Your task to perform on an android device: What's the weather today? Image 0: 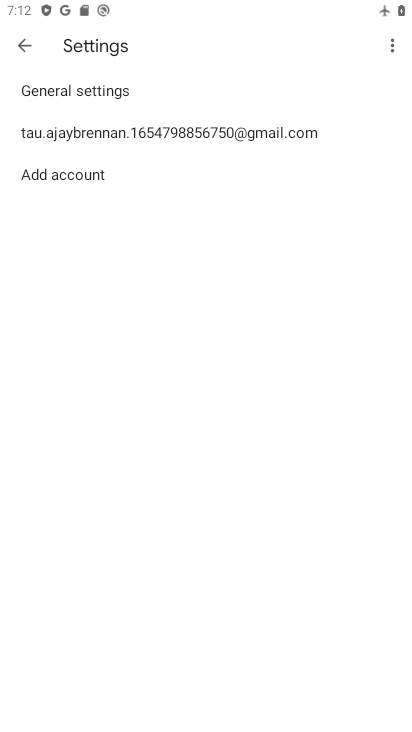
Step 0: press home button
Your task to perform on an android device: What's the weather today? Image 1: 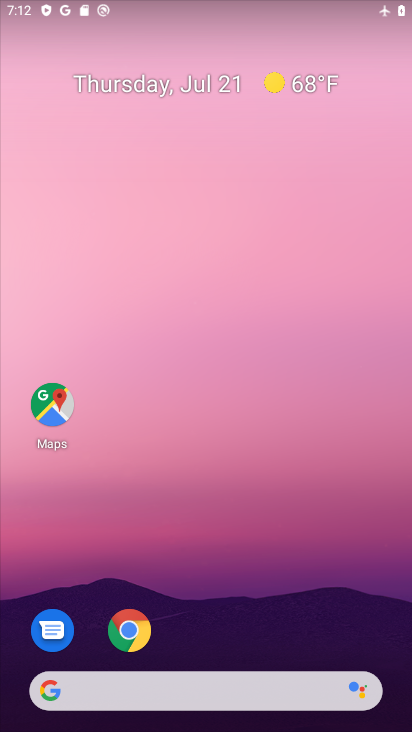
Step 1: drag from (271, 569) to (271, 68)
Your task to perform on an android device: What's the weather today? Image 2: 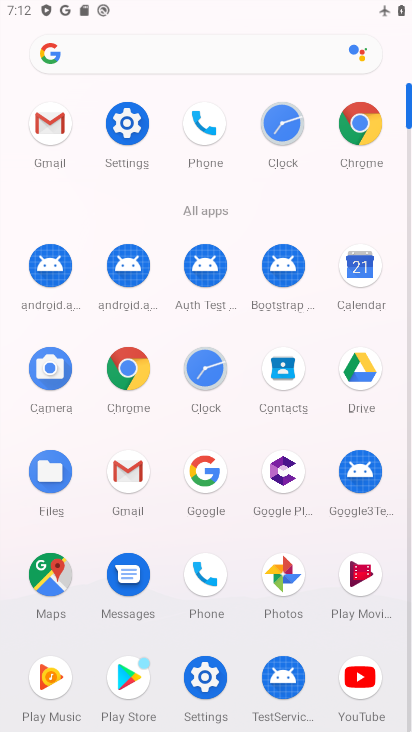
Step 2: click (200, 480)
Your task to perform on an android device: What's the weather today? Image 3: 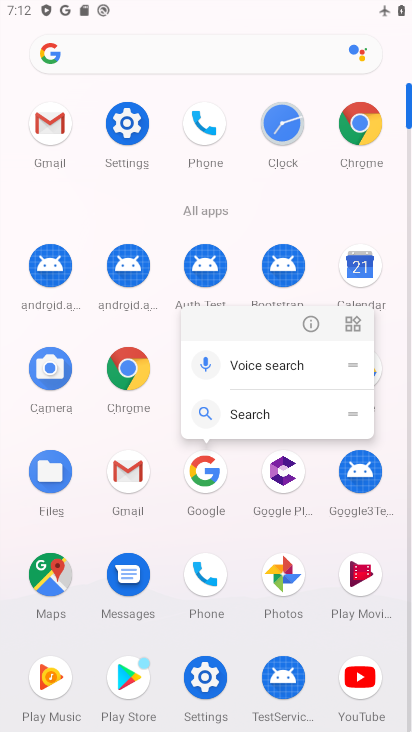
Step 3: click (200, 479)
Your task to perform on an android device: What's the weather today? Image 4: 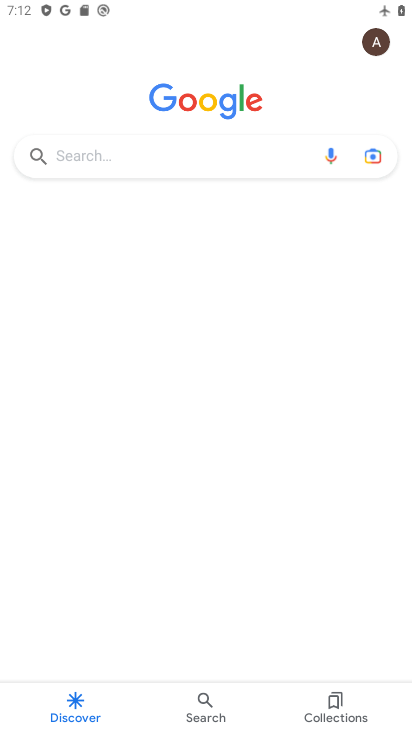
Step 4: click (182, 149)
Your task to perform on an android device: What's the weather today? Image 5: 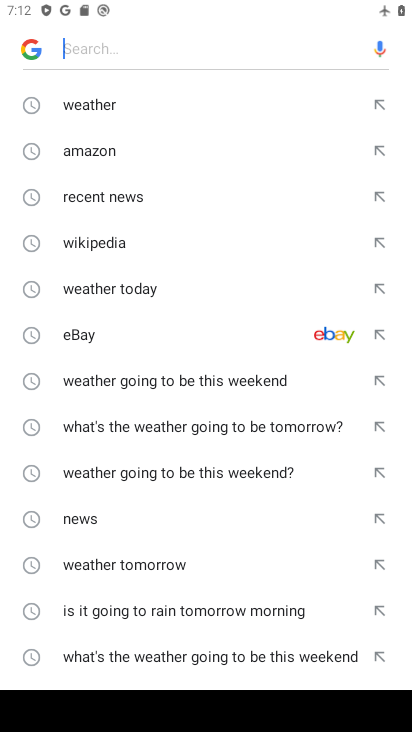
Step 5: click (104, 110)
Your task to perform on an android device: What's the weather today? Image 6: 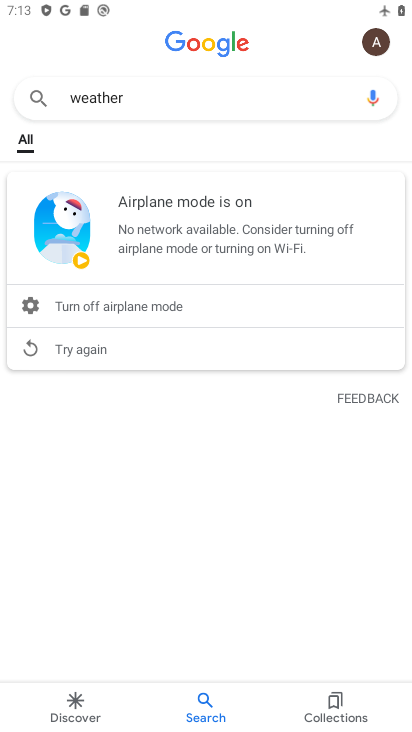
Step 6: task complete